Your task to perform on an android device: delete the emails in spam in the gmail app Image 0: 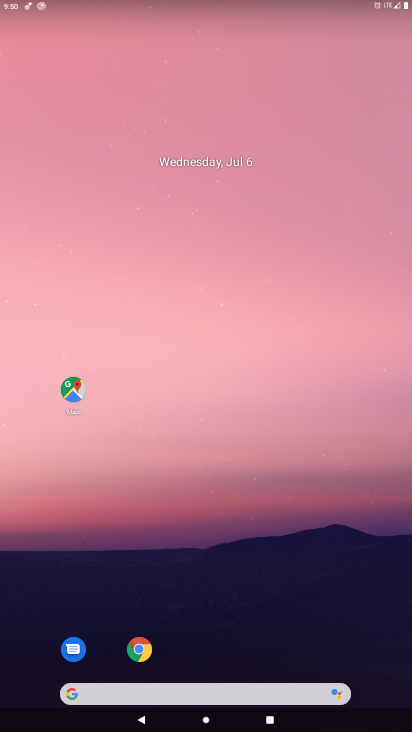
Step 0: drag from (238, 645) to (239, 273)
Your task to perform on an android device: delete the emails in spam in the gmail app Image 1: 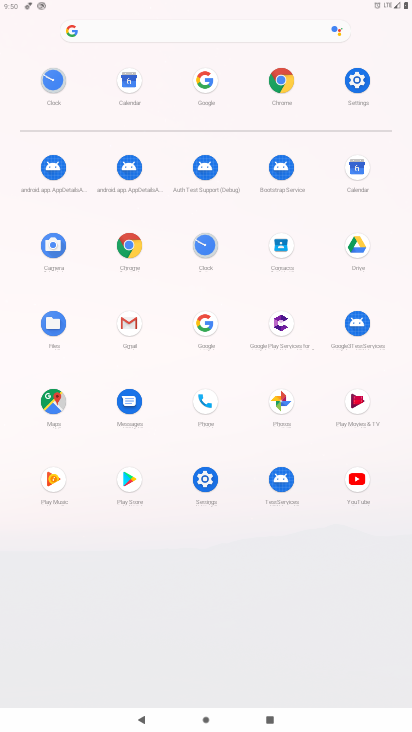
Step 1: click (130, 323)
Your task to perform on an android device: delete the emails in spam in the gmail app Image 2: 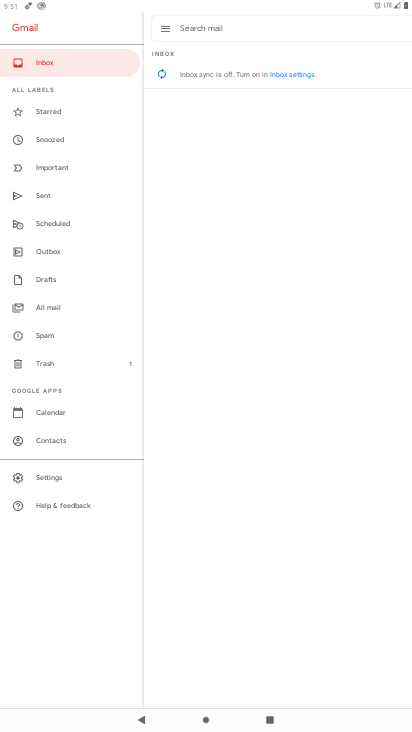
Step 2: click (57, 332)
Your task to perform on an android device: delete the emails in spam in the gmail app Image 3: 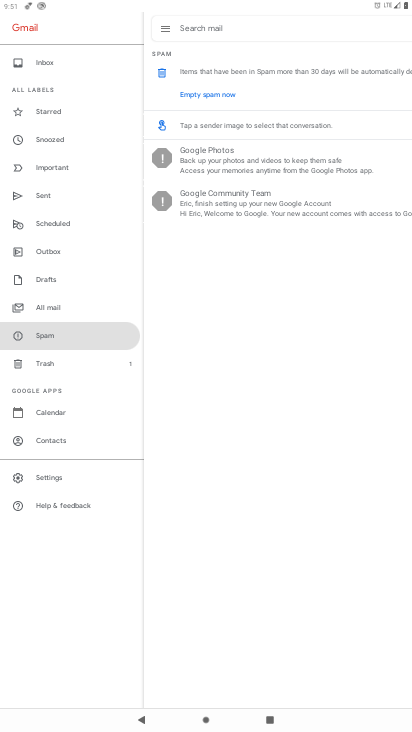
Step 3: click (210, 95)
Your task to perform on an android device: delete the emails in spam in the gmail app Image 4: 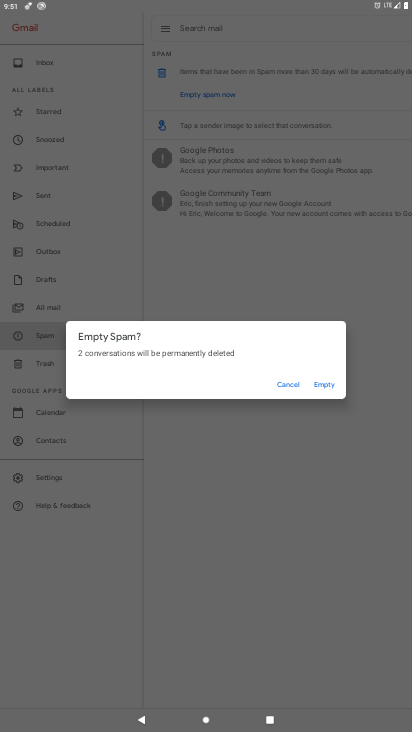
Step 4: click (329, 387)
Your task to perform on an android device: delete the emails in spam in the gmail app Image 5: 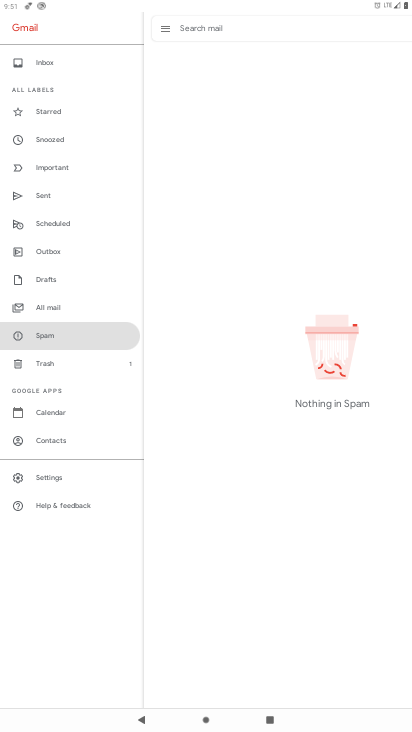
Step 5: task complete